Your task to perform on an android device: Go to Google Image 0: 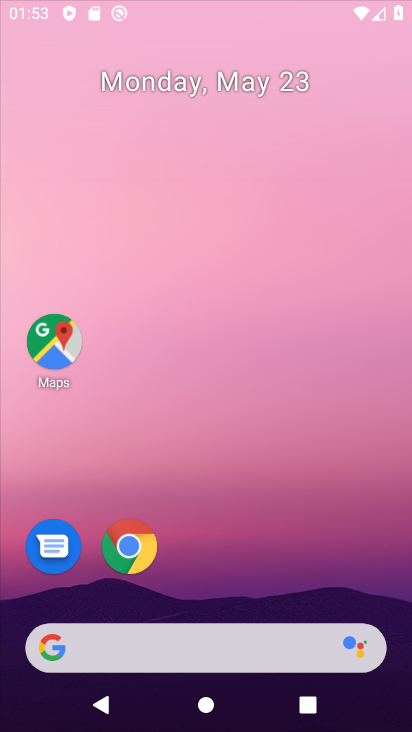
Step 0: drag from (276, 76) to (250, 123)
Your task to perform on an android device: Go to Google Image 1: 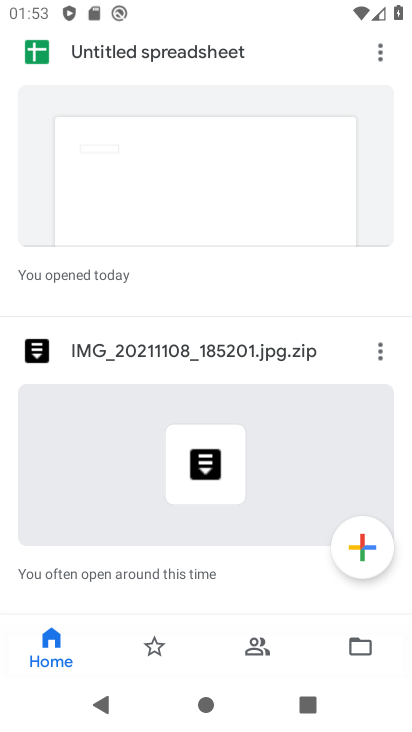
Step 1: press back button
Your task to perform on an android device: Go to Google Image 2: 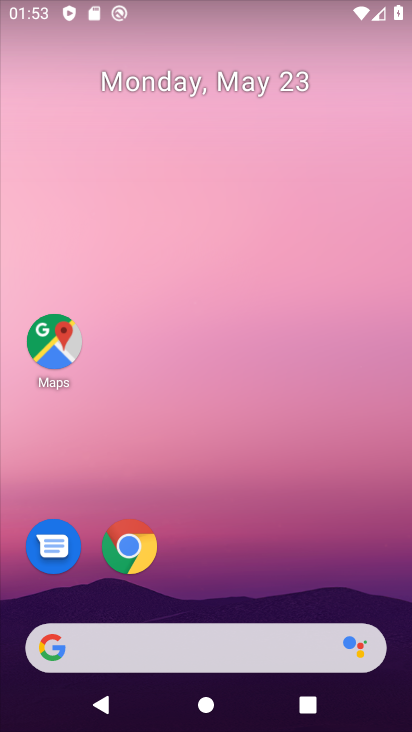
Step 2: drag from (245, 522) to (296, 58)
Your task to perform on an android device: Go to Google Image 3: 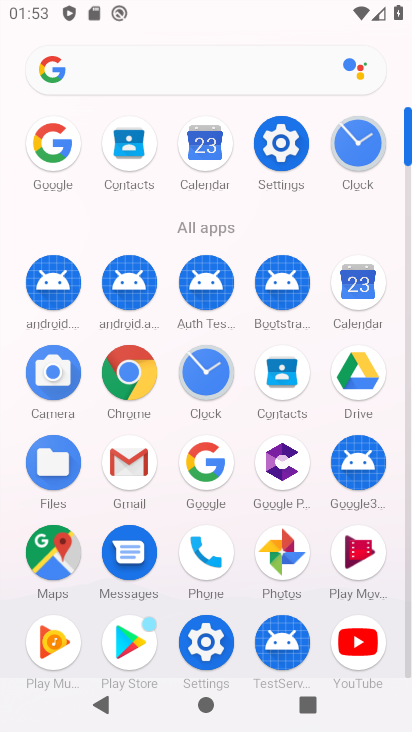
Step 3: click (208, 484)
Your task to perform on an android device: Go to Google Image 4: 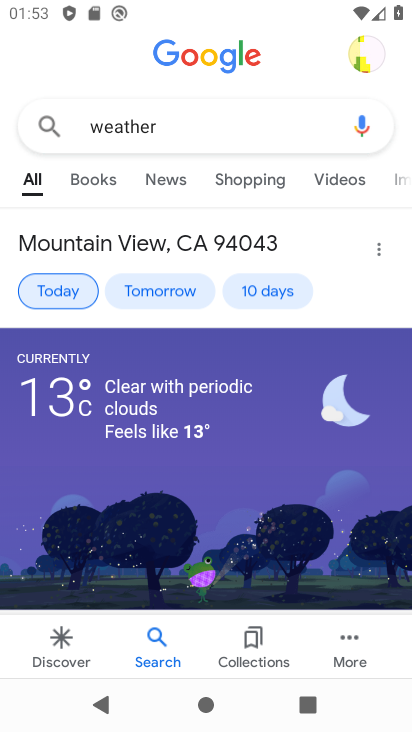
Step 4: task complete